Your task to perform on an android device: clear history in the chrome app Image 0: 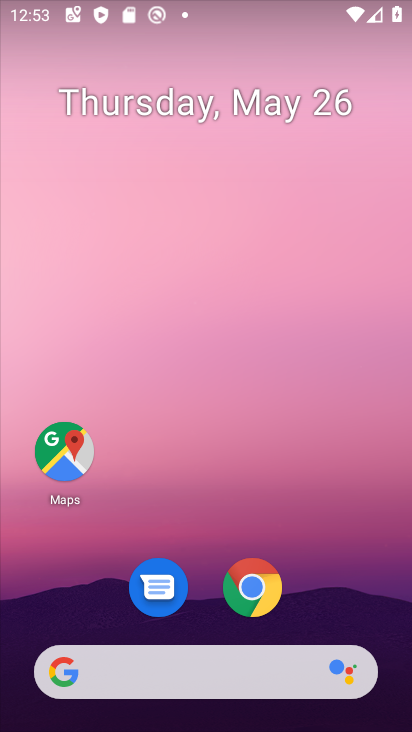
Step 0: drag from (376, 601) to (350, 152)
Your task to perform on an android device: clear history in the chrome app Image 1: 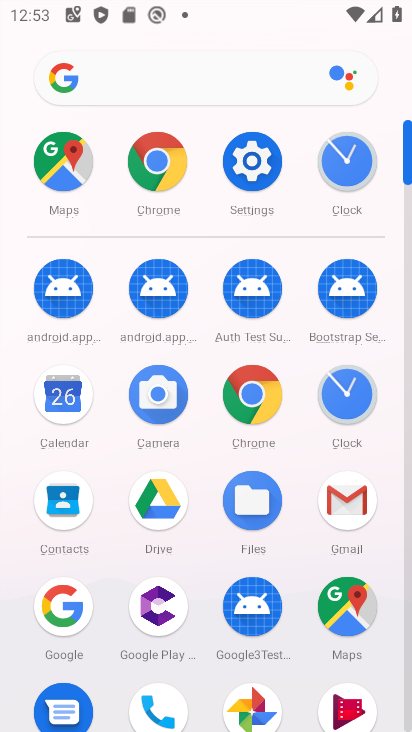
Step 1: click (267, 402)
Your task to perform on an android device: clear history in the chrome app Image 2: 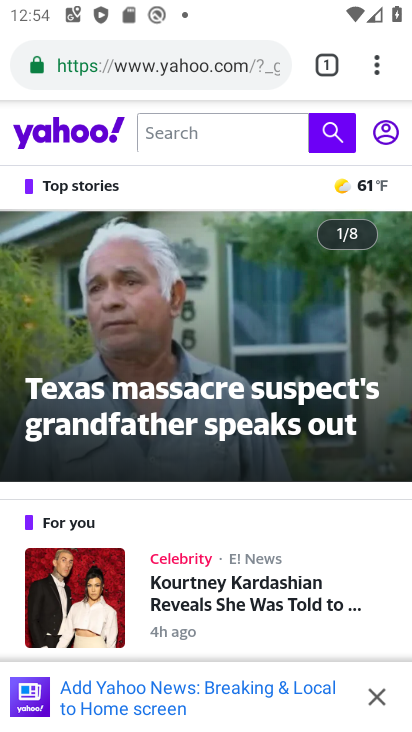
Step 2: click (377, 61)
Your task to perform on an android device: clear history in the chrome app Image 3: 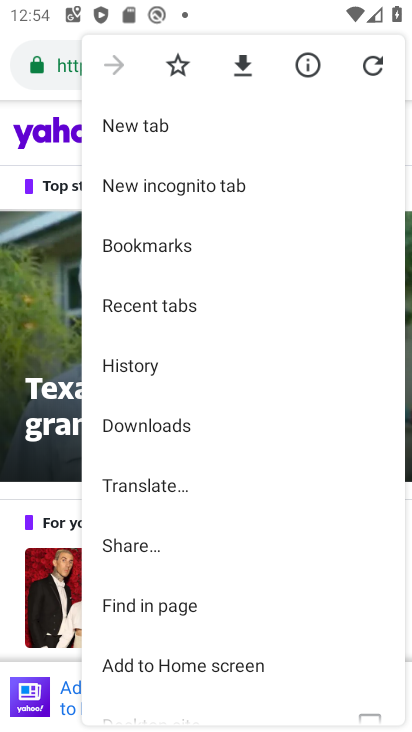
Step 3: click (131, 377)
Your task to perform on an android device: clear history in the chrome app Image 4: 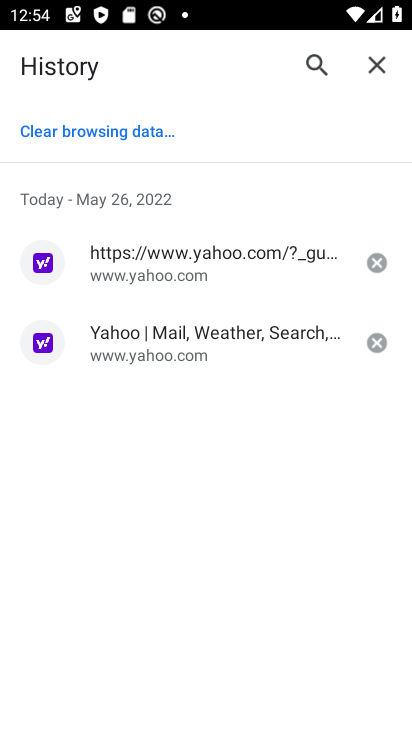
Step 4: click (139, 142)
Your task to perform on an android device: clear history in the chrome app Image 5: 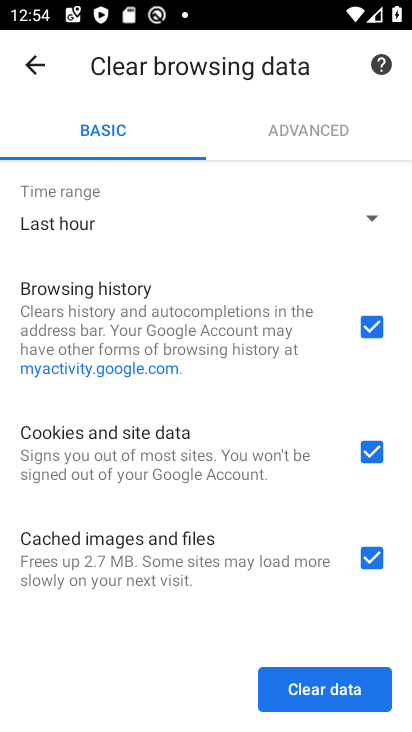
Step 5: click (325, 697)
Your task to perform on an android device: clear history in the chrome app Image 6: 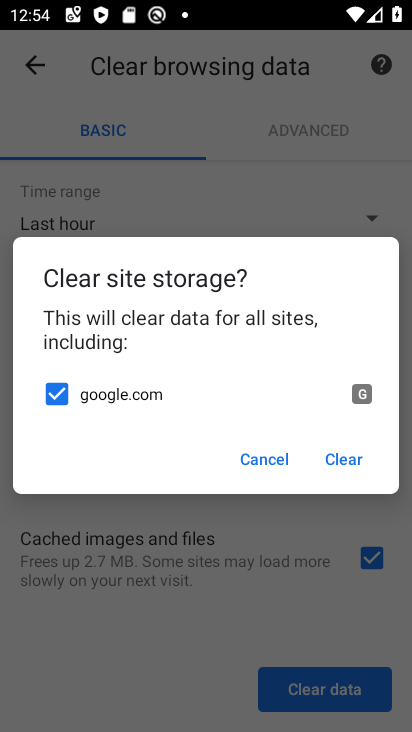
Step 6: click (358, 466)
Your task to perform on an android device: clear history in the chrome app Image 7: 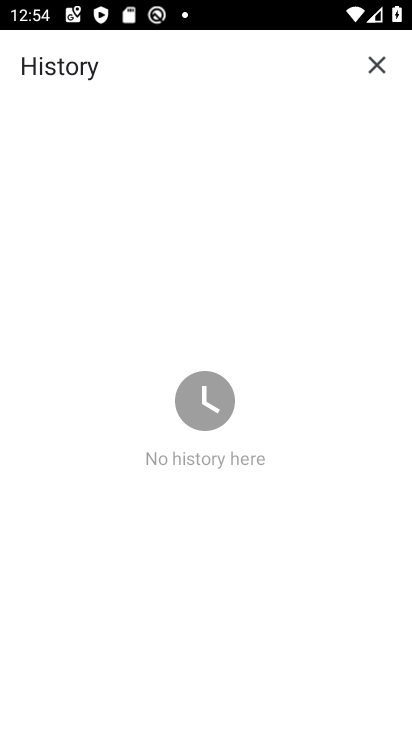
Step 7: task complete